Your task to perform on an android device: Search for seafood restaurants on Google Maps Image 0: 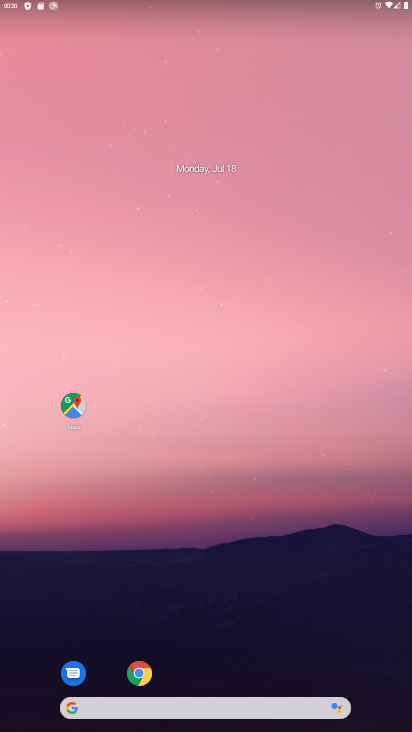
Step 0: click (86, 422)
Your task to perform on an android device: Search for seafood restaurants on Google Maps Image 1: 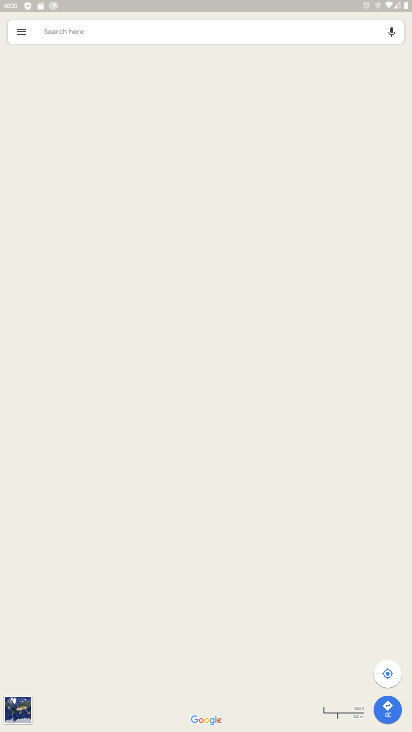
Step 1: click (152, 38)
Your task to perform on an android device: Search for seafood restaurants on Google Maps Image 2: 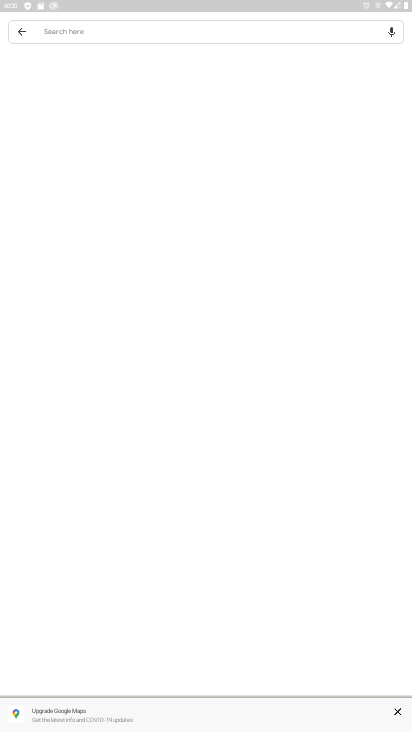
Step 2: click (214, 35)
Your task to perform on an android device: Search for seafood restaurants on Google Maps Image 3: 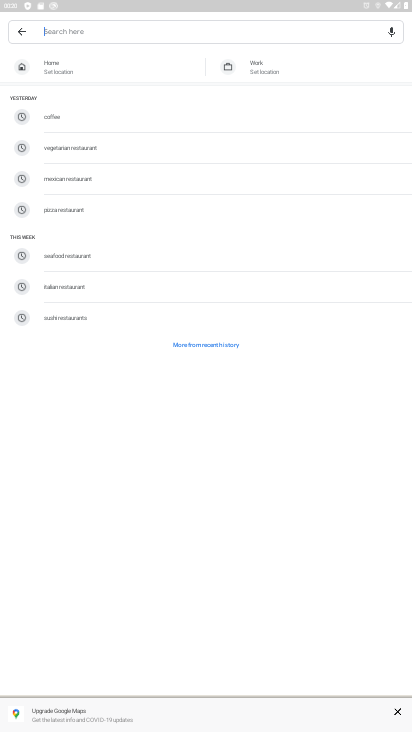
Step 3: click (224, 34)
Your task to perform on an android device: Search for seafood restaurants on Google Maps Image 4: 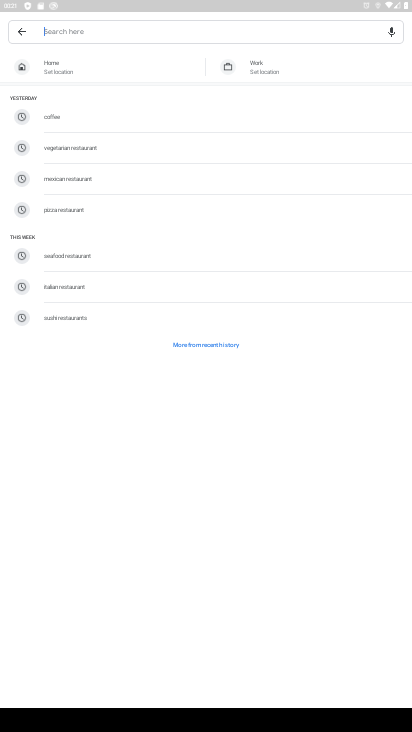
Step 4: type "seafood"
Your task to perform on an android device: Search for seafood restaurants on Google Maps Image 5: 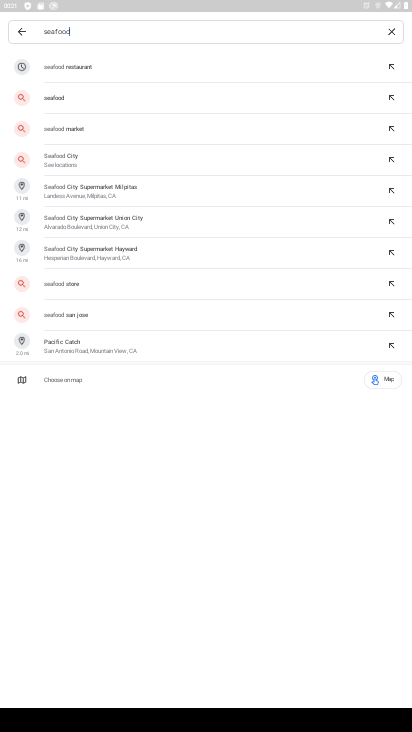
Step 5: click (114, 75)
Your task to perform on an android device: Search for seafood restaurants on Google Maps Image 6: 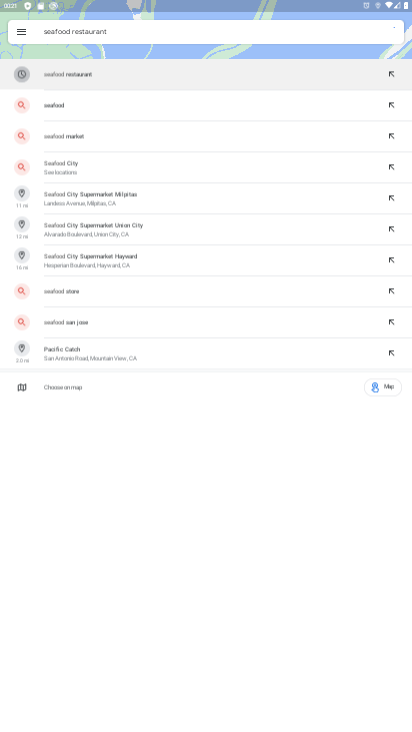
Step 6: task complete